Your task to perform on an android device: change the clock display to show seconds Image 0: 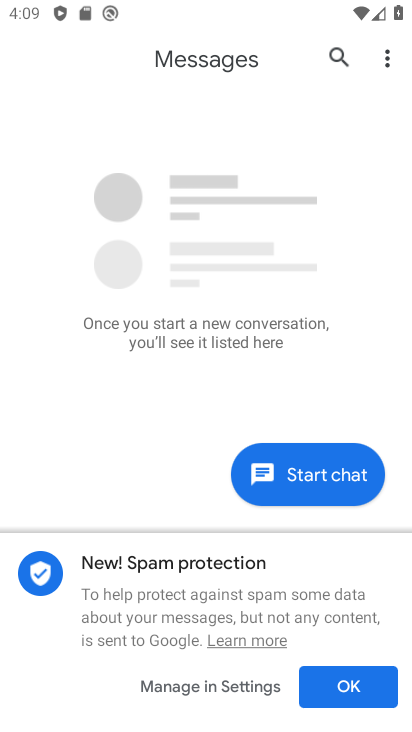
Step 0: press home button
Your task to perform on an android device: change the clock display to show seconds Image 1: 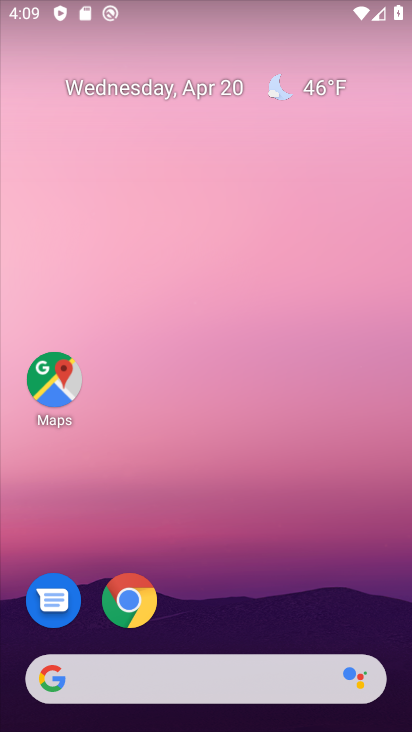
Step 1: drag from (212, 606) to (199, 123)
Your task to perform on an android device: change the clock display to show seconds Image 2: 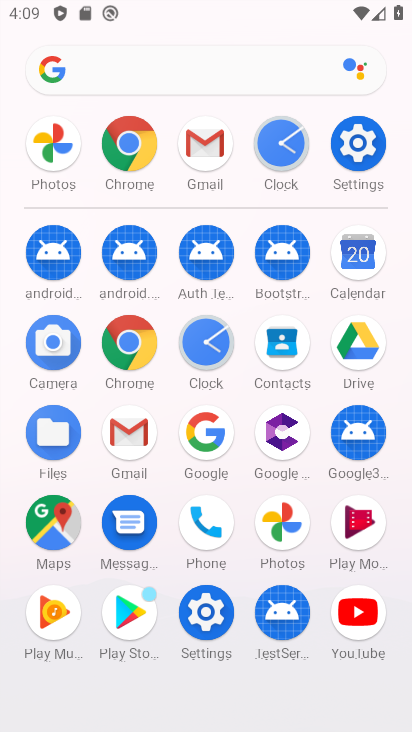
Step 2: click (291, 141)
Your task to perform on an android device: change the clock display to show seconds Image 3: 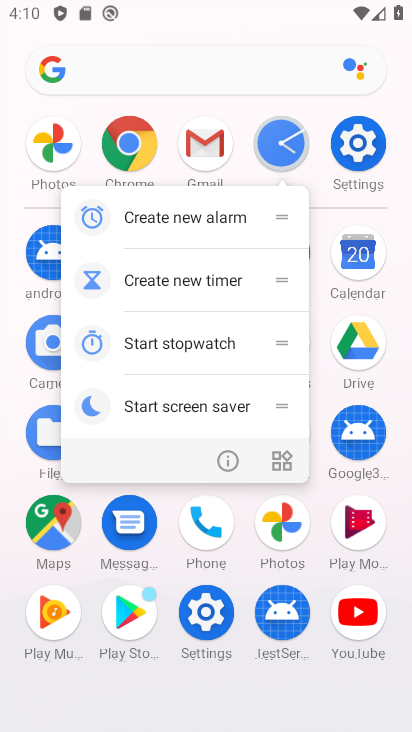
Step 3: click (279, 141)
Your task to perform on an android device: change the clock display to show seconds Image 4: 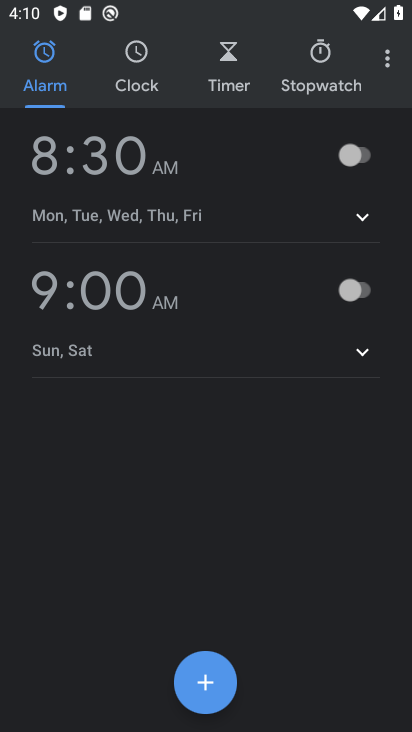
Step 4: click (383, 60)
Your task to perform on an android device: change the clock display to show seconds Image 5: 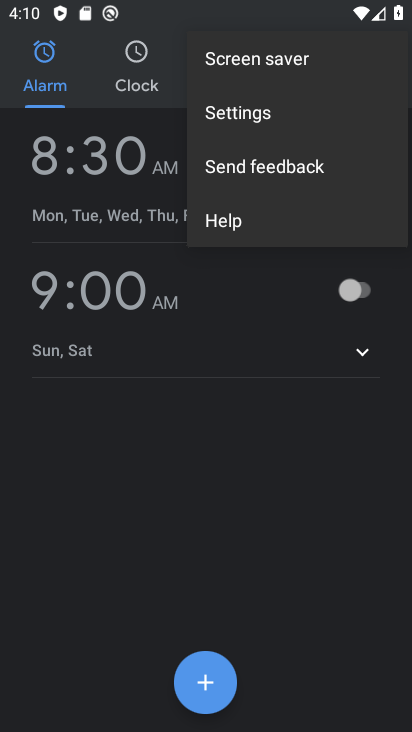
Step 5: click (278, 108)
Your task to perform on an android device: change the clock display to show seconds Image 6: 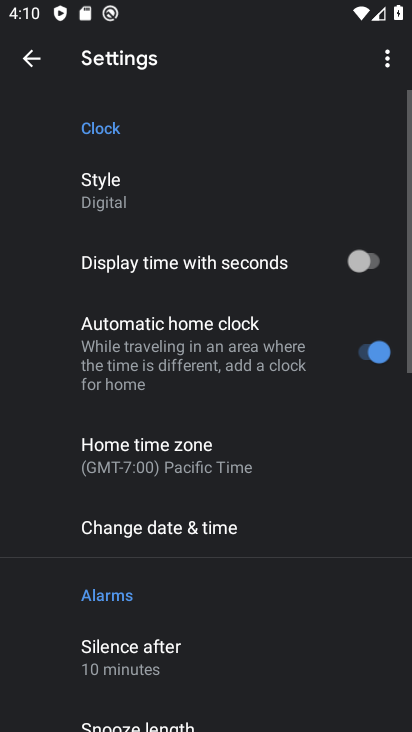
Step 6: click (363, 264)
Your task to perform on an android device: change the clock display to show seconds Image 7: 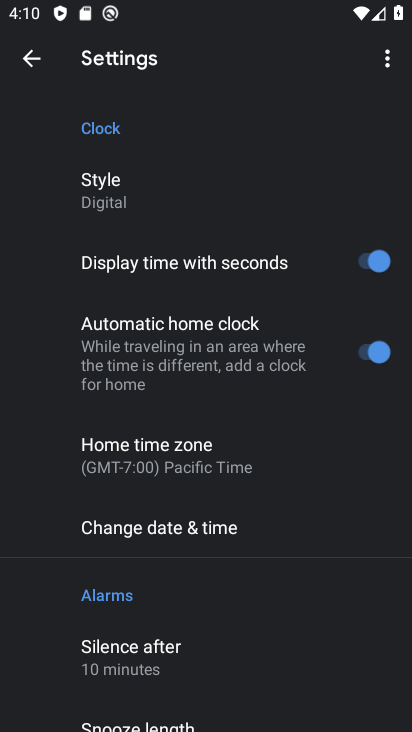
Step 7: task complete